Your task to perform on an android device: turn off translation in the chrome app Image 0: 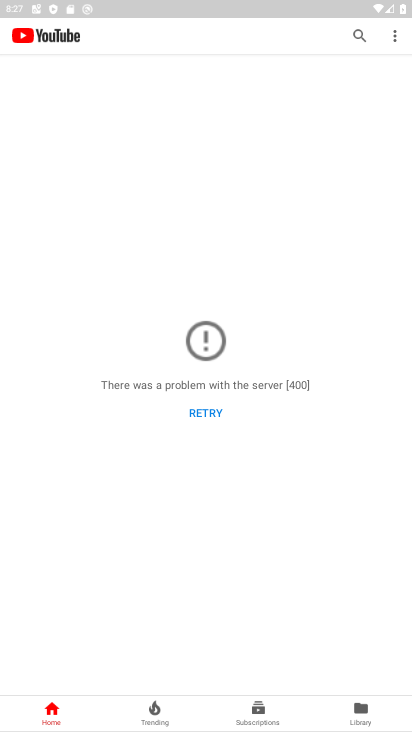
Step 0: click (283, 567)
Your task to perform on an android device: turn off translation in the chrome app Image 1: 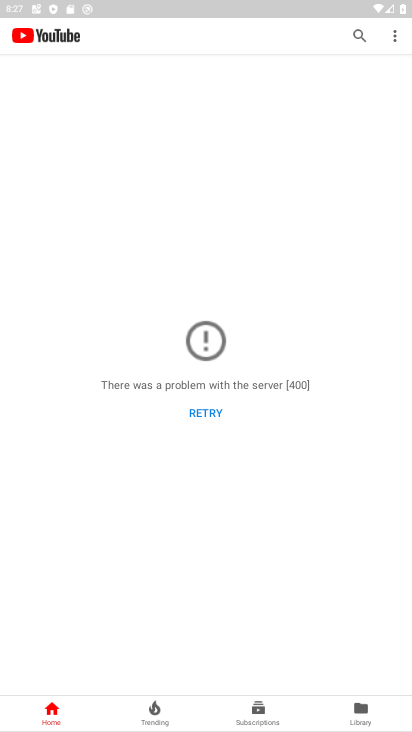
Step 1: press home button
Your task to perform on an android device: turn off translation in the chrome app Image 2: 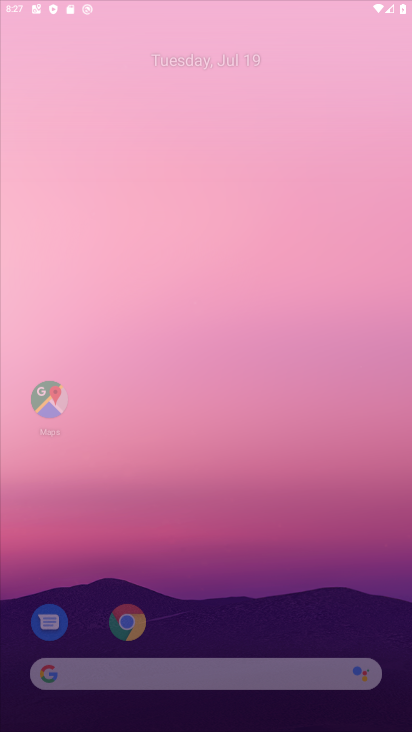
Step 2: press home button
Your task to perform on an android device: turn off translation in the chrome app Image 3: 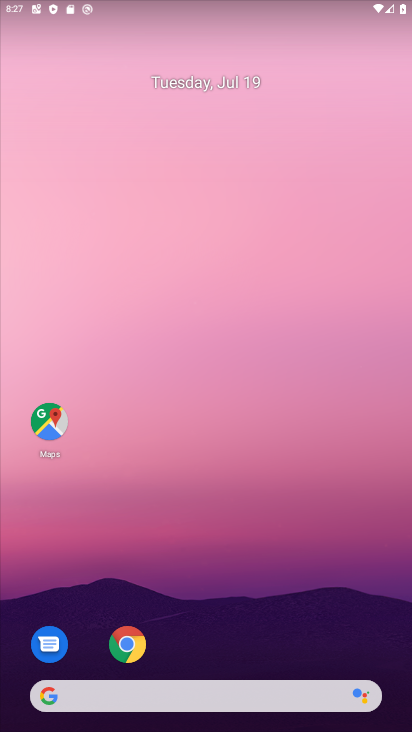
Step 3: drag from (237, 641) to (397, 90)
Your task to perform on an android device: turn off translation in the chrome app Image 4: 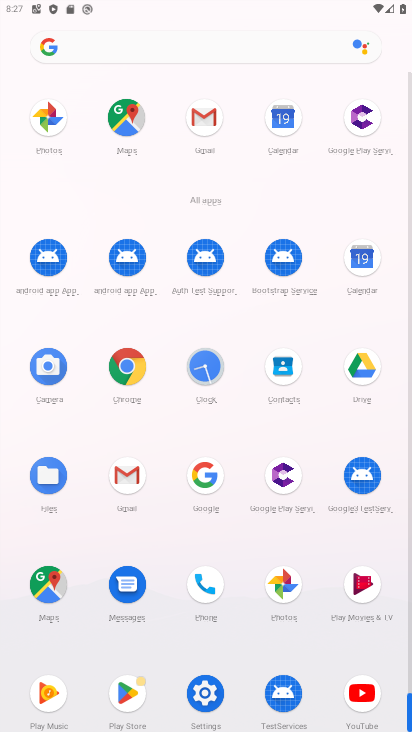
Step 4: click (129, 368)
Your task to perform on an android device: turn off translation in the chrome app Image 5: 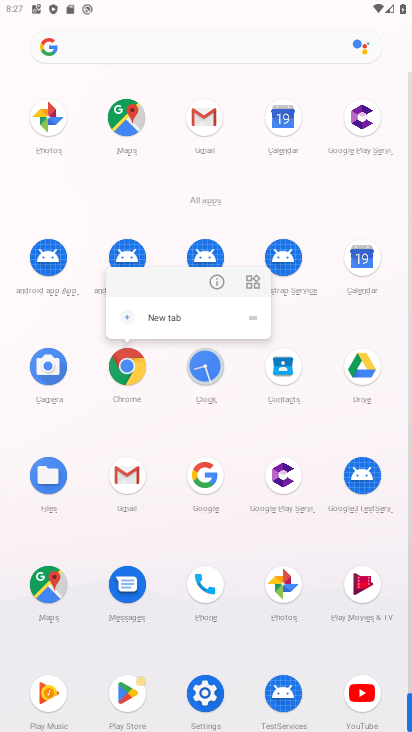
Step 5: click (222, 275)
Your task to perform on an android device: turn off translation in the chrome app Image 6: 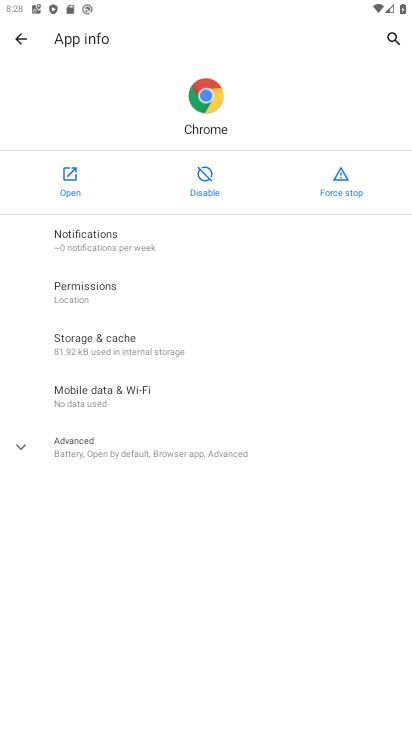
Step 6: click (56, 173)
Your task to perform on an android device: turn off translation in the chrome app Image 7: 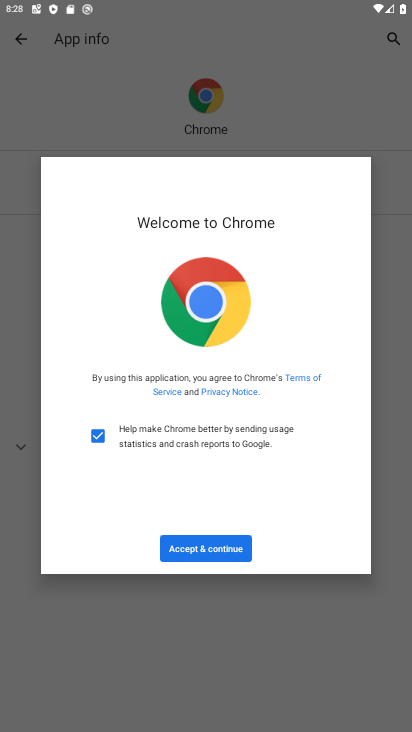
Step 7: click (215, 564)
Your task to perform on an android device: turn off translation in the chrome app Image 8: 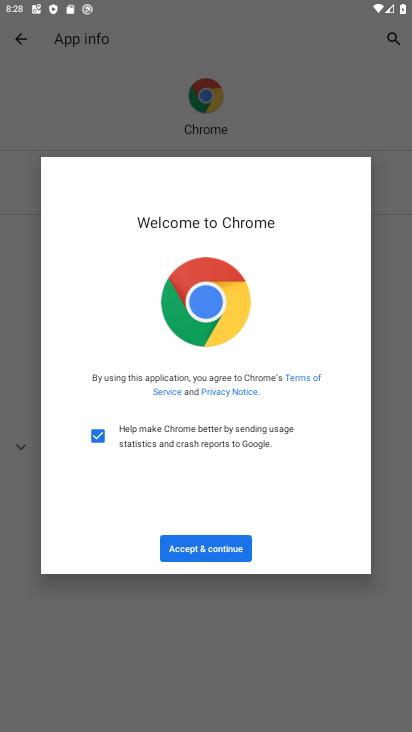
Step 8: click (214, 558)
Your task to perform on an android device: turn off translation in the chrome app Image 9: 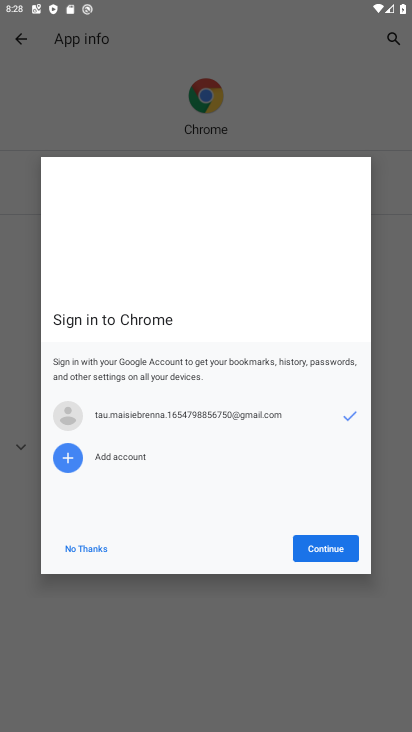
Step 9: click (332, 554)
Your task to perform on an android device: turn off translation in the chrome app Image 10: 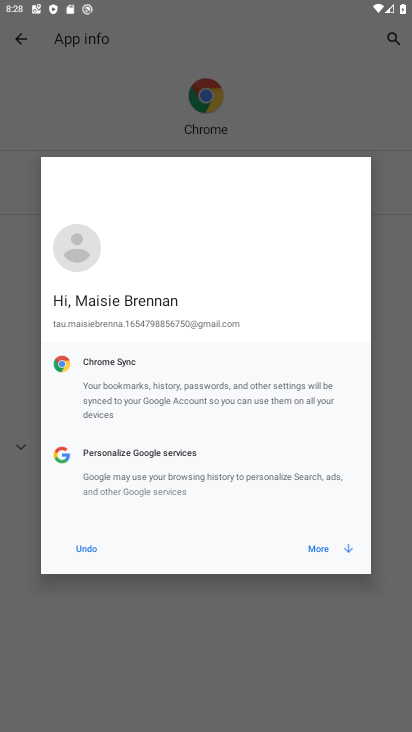
Step 10: click (329, 547)
Your task to perform on an android device: turn off translation in the chrome app Image 11: 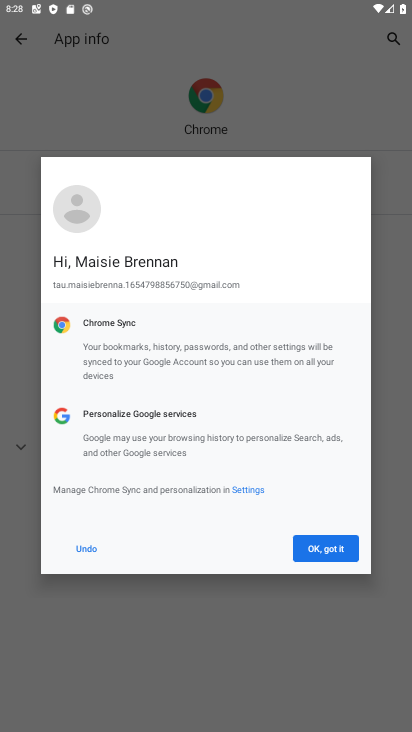
Step 11: click (327, 545)
Your task to perform on an android device: turn off translation in the chrome app Image 12: 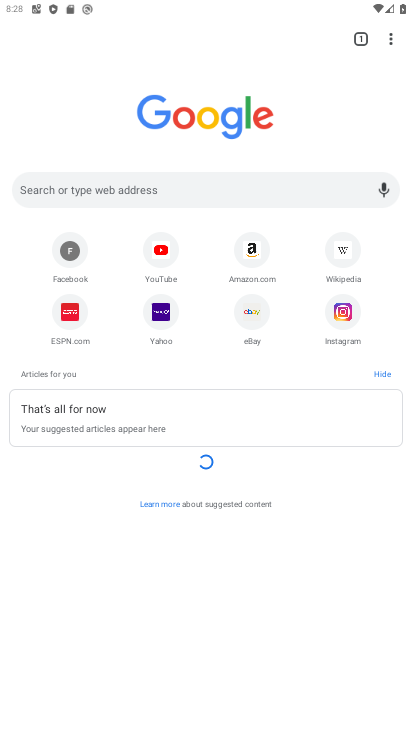
Step 12: drag from (390, 33) to (287, 320)
Your task to perform on an android device: turn off translation in the chrome app Image 13: 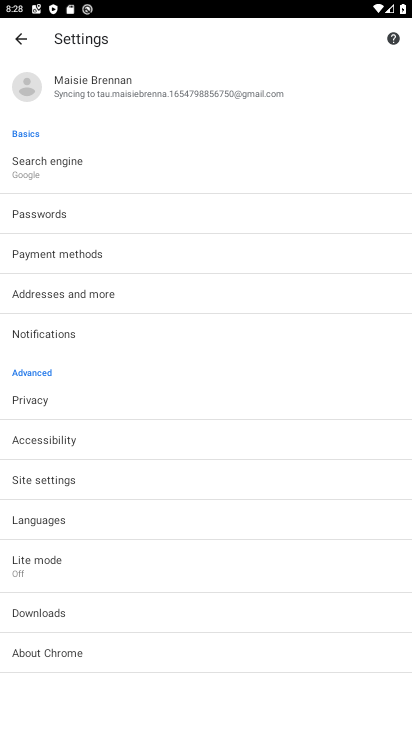
Step 13: drag from (215, 537) to (206, 136)
Your task to perform on an android device: turn off translation in the chrome app Image 14: 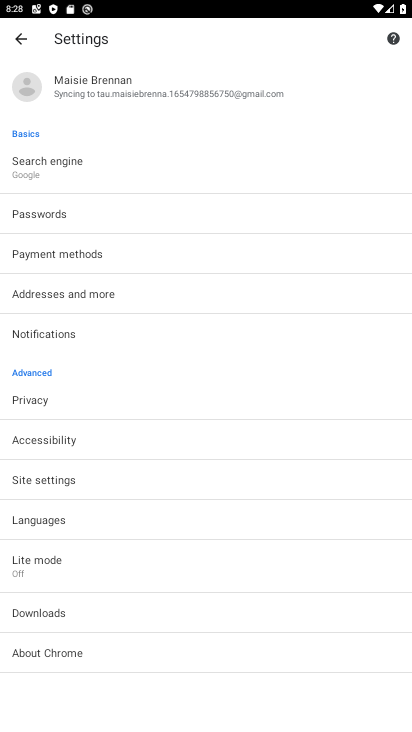
Step 14: drag from (196, 156) to (270, 491)
Your task to perform on an android device: turn off translation in the chrome app Image 15: 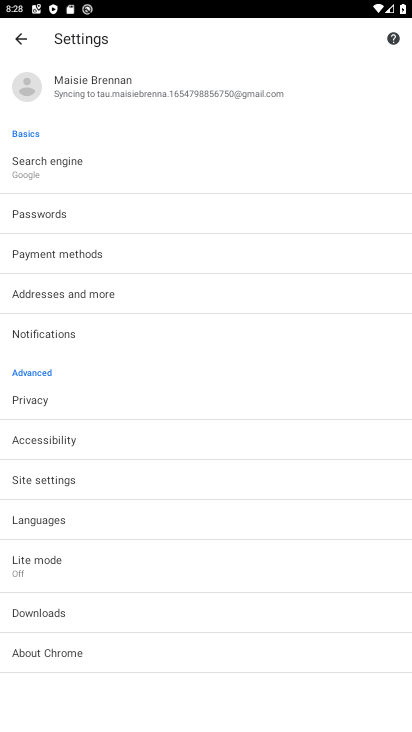
Step 15: drag from (96, 572) to (201, 233)
Your task to perform on an android device: turn off translation in the chrome app Image 16: 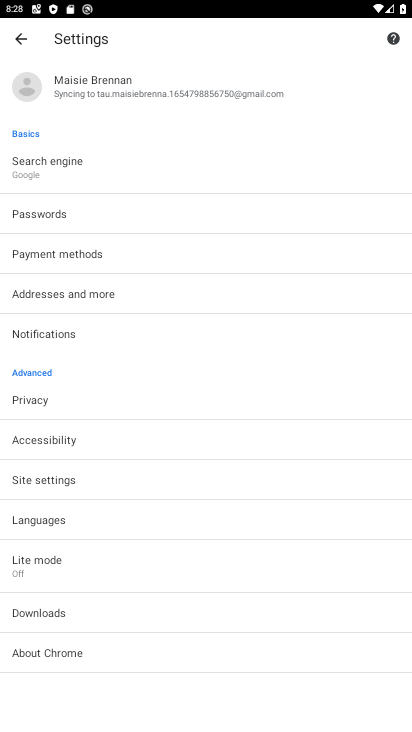
Step 16: drag from (200, 243) to (213, 684)
Your task to perform on an android device: turn off translation in the chrome app Image 17: 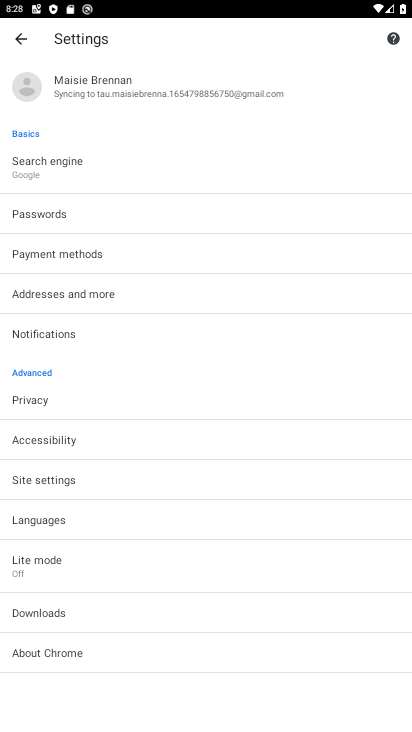
Step 17: click (135, 474)
Your task to perform on an android device: turn off translation in the chrome app Image 18: 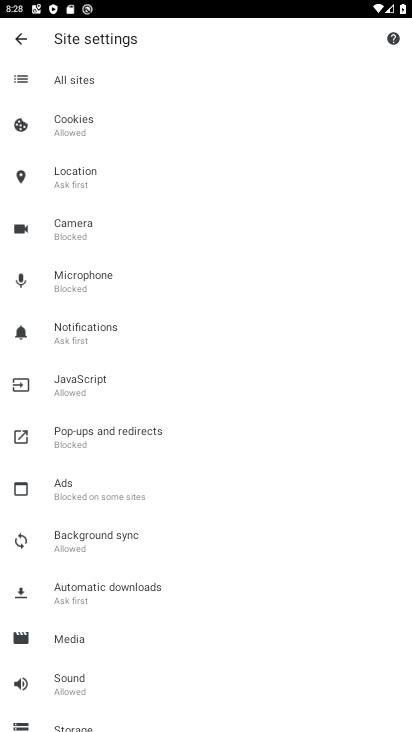
Step 18: drag from (173, 632) to (266, 287)
Your task to perform on an android device: turn off translation in the chrome app Image 19: 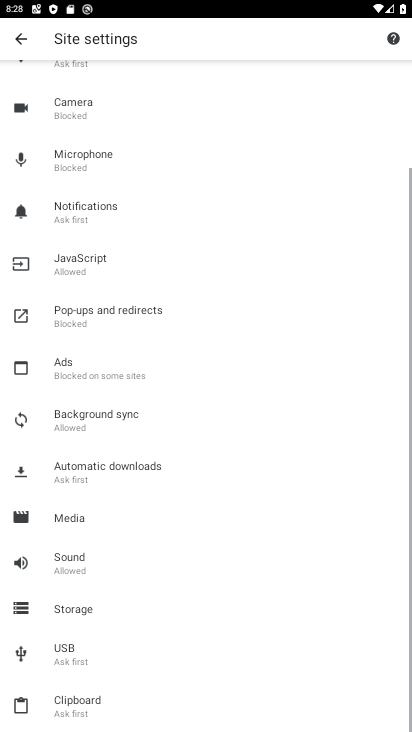
Step 19: drag from (142, 648) to (150, 456)
Your task to perform on an android device: turn off translation in the chrome app Image 20: 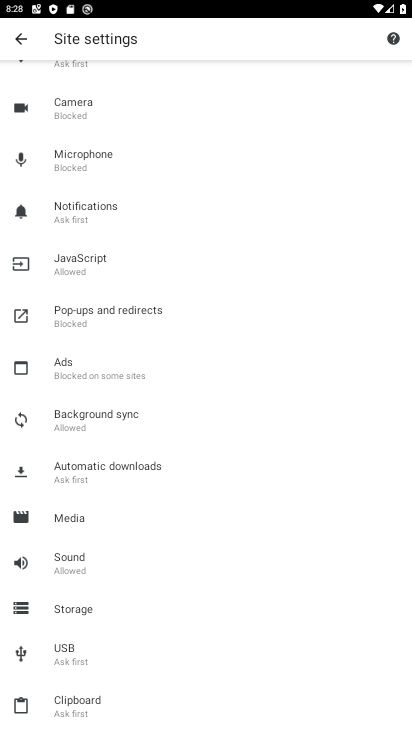
Step 20: drag from (154, 266) to (187, 729)
Your task to perform on an android device: turn off translation in the chrome app Image 21: 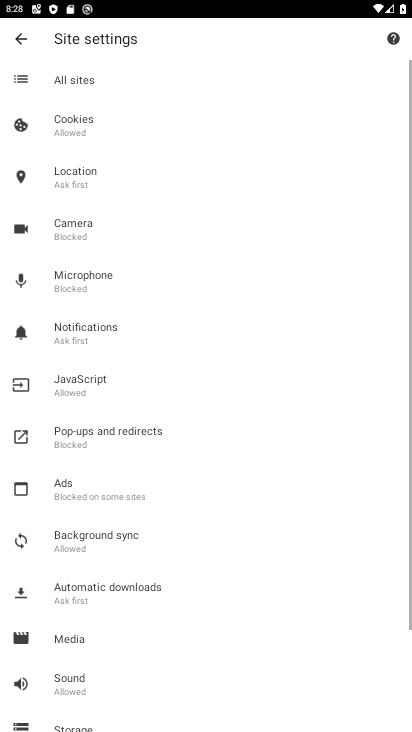
Step 21: drag from (132, 513) to (284, 172)
Your task to perform on an android device: turn off translation in the chrome app Image 22: 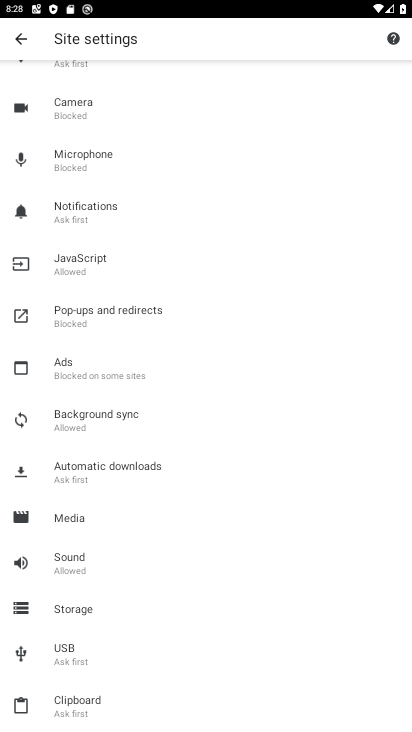
Step 22: drag from (161, 629) to (248, 255)
Your task to perform on an android device: turn off translation in the chrome app Image 23: 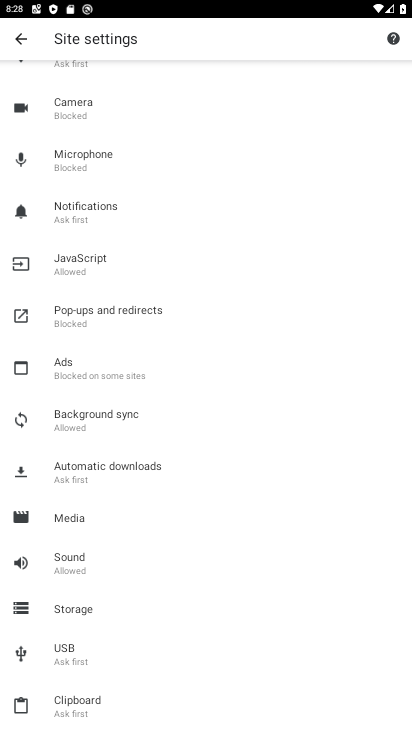
Step 23: click (29, 35)
Your task to perform on an android device: turn off translation in the chrome app Image 24: 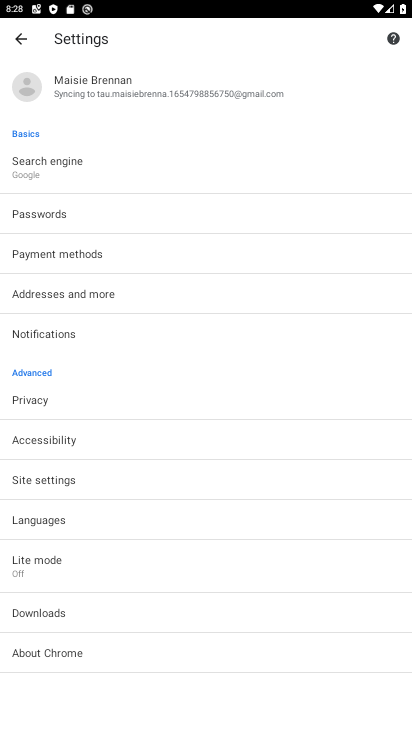
Step 24: click (41, 521)
Your task to perform on an android device: turn off translation in the chrome app Image 25: 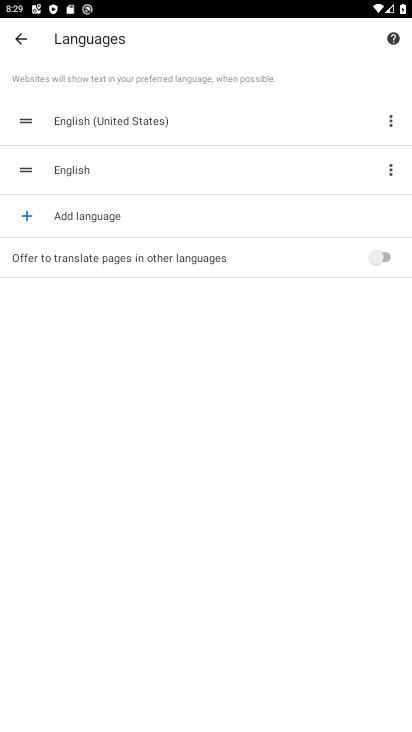
Step 25: task complete